Your task to perform on an android device: change timer sound Image 0: 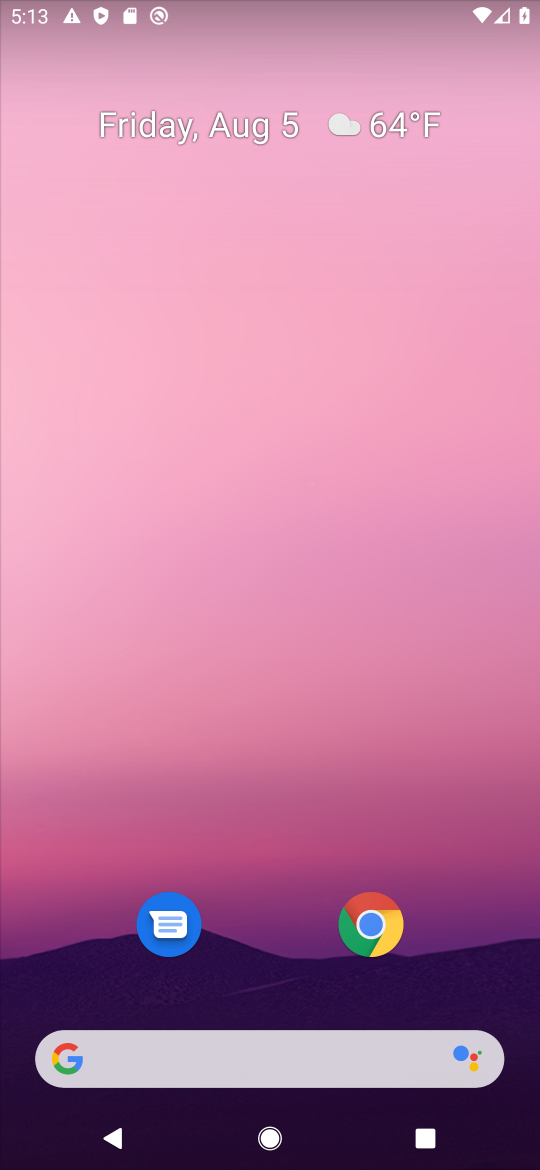
Step 0: drag from (212, 1113) to (498, 255)
Your task to perform on an android device: change timer sound Image 1: 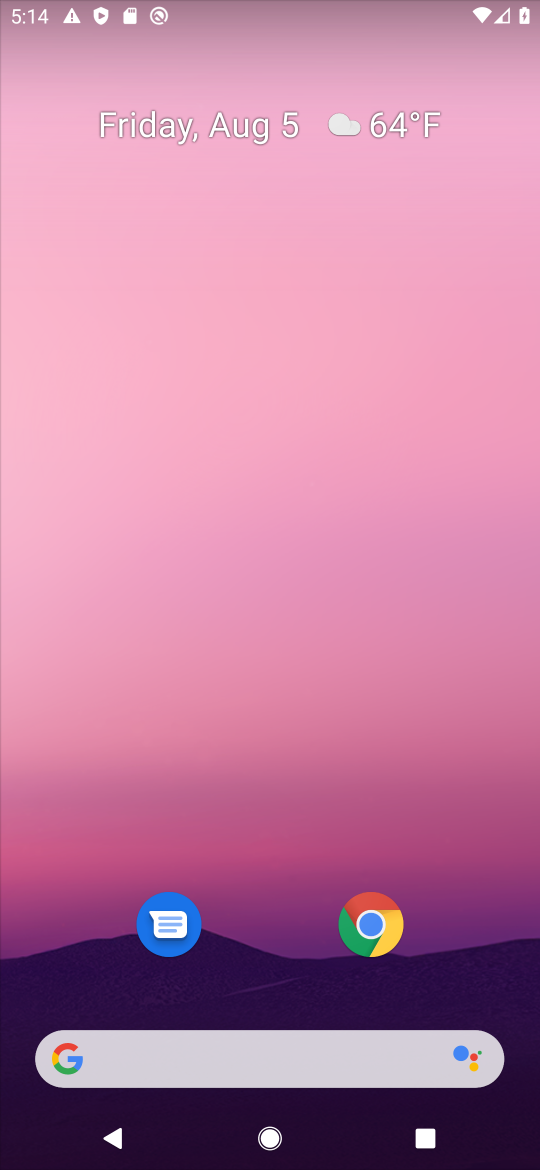
Step 1: drag from (181, 906) to (235, 44)
Your task to perform on an android device: change timer sound Image 2: 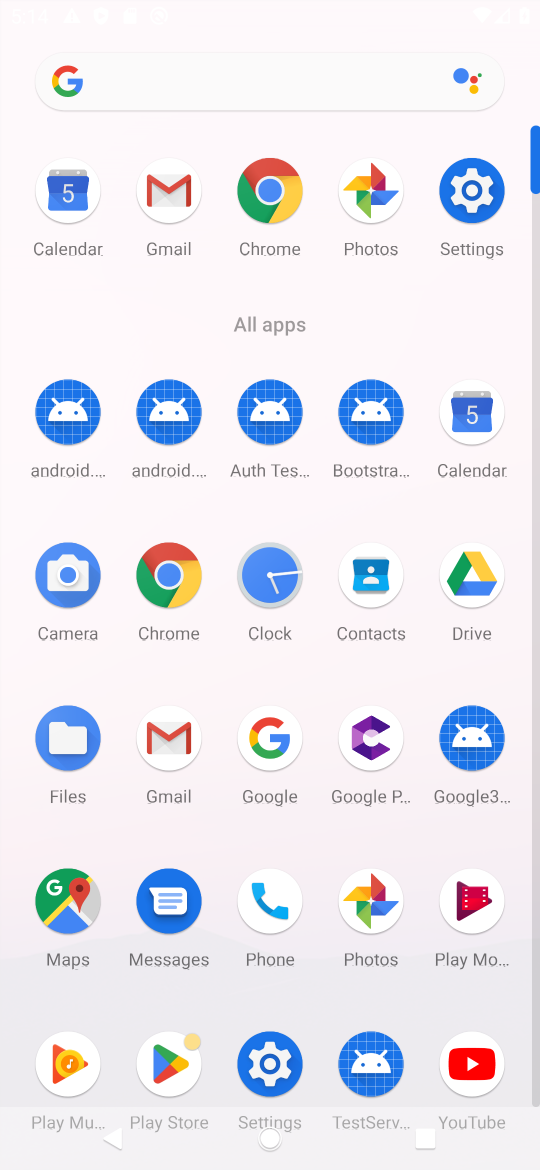
Step 2: click (467, 272)
Your task to perform on an android device: change timer sound Image 3: 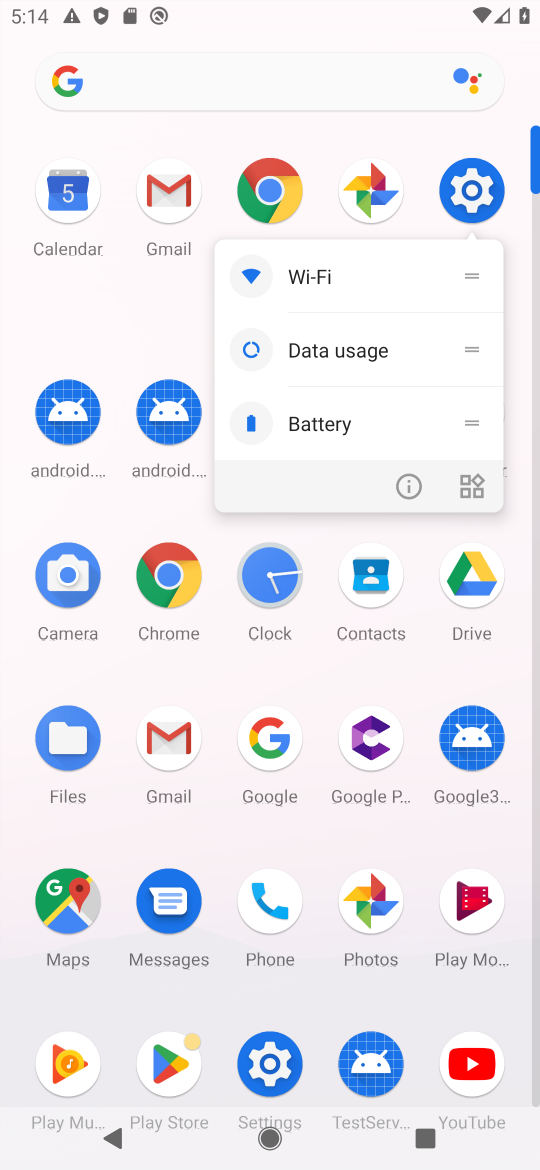
Step 3: click (484, 195)
Your task to perform on an android device: change timer sound Image 4: 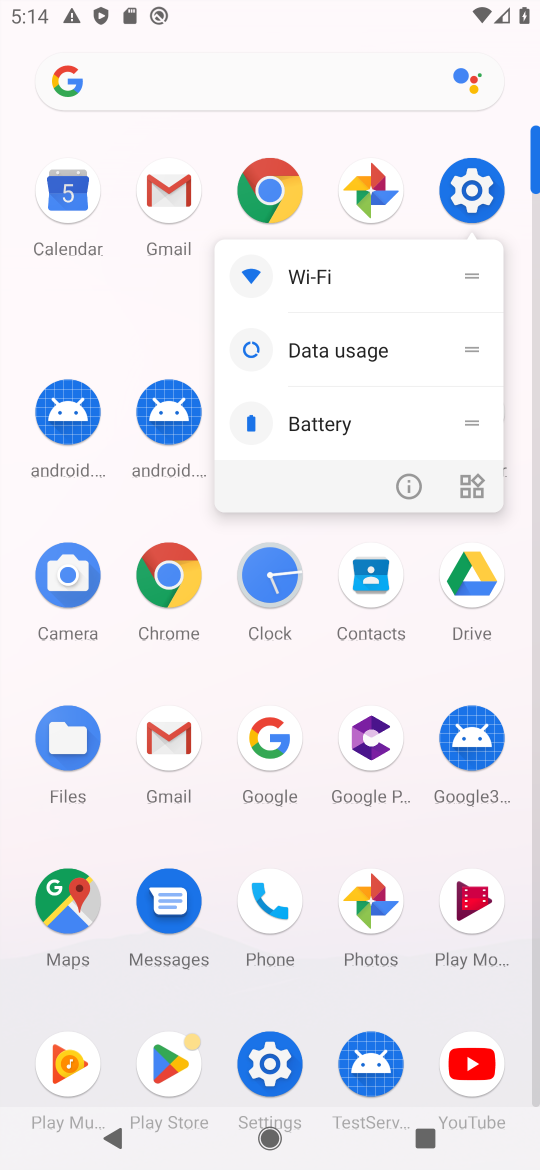
Step 4: click (484, 195)
Your task to perform on an android device: change timer sound Image 5: 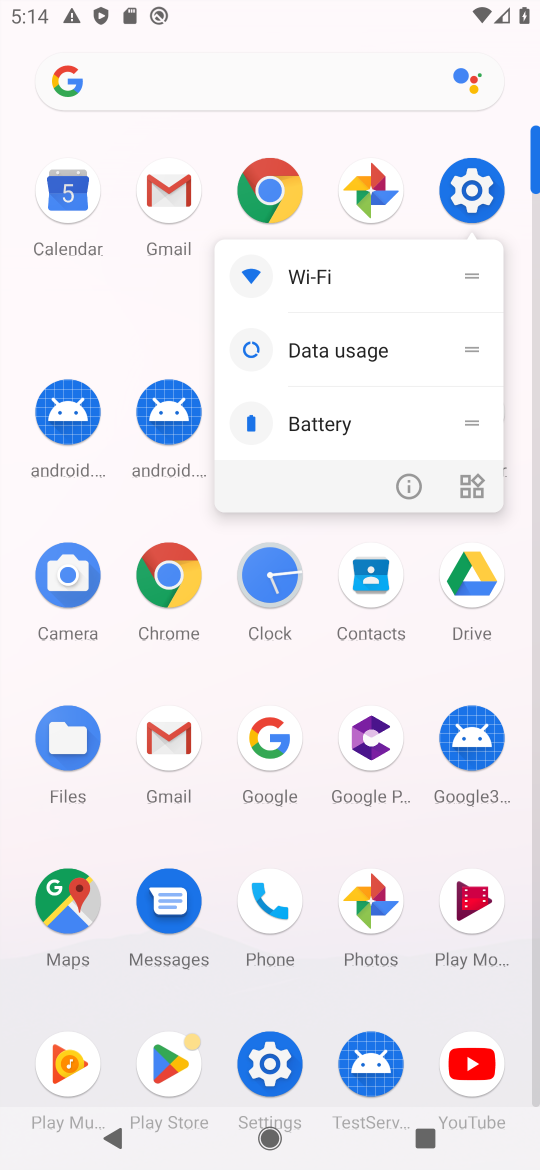
Step 5: click (484, 195)
Your task to perform on an android device: change timer sound Image 6: 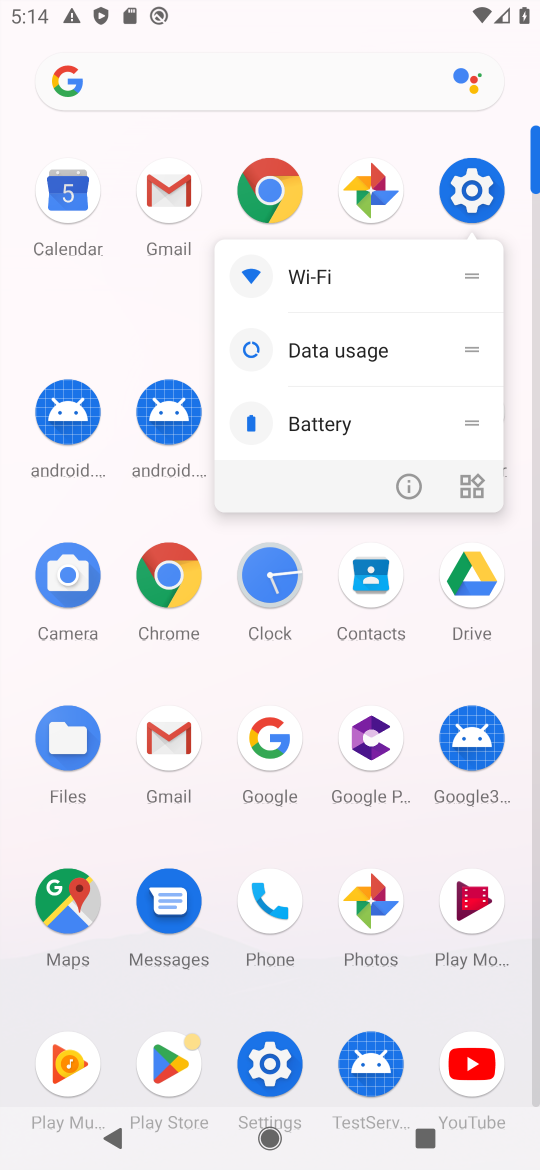
Step 6: click (484, 195)
Your task to perform on an android device: change timer sound Image 7: 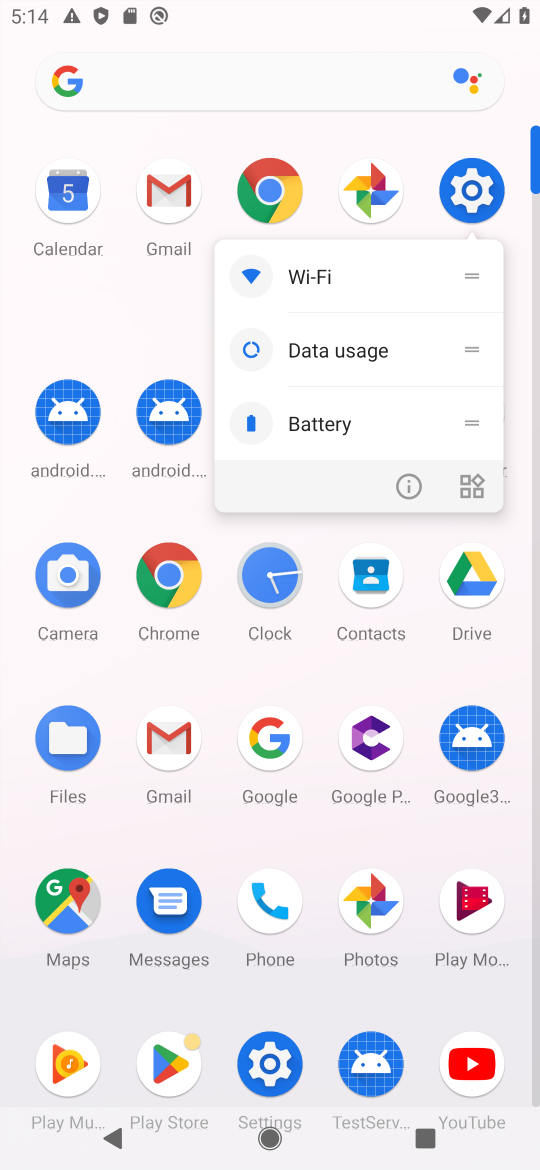
Step 7: click (484, 195)
Your task to perform on an android device: change timer sound Image 8: 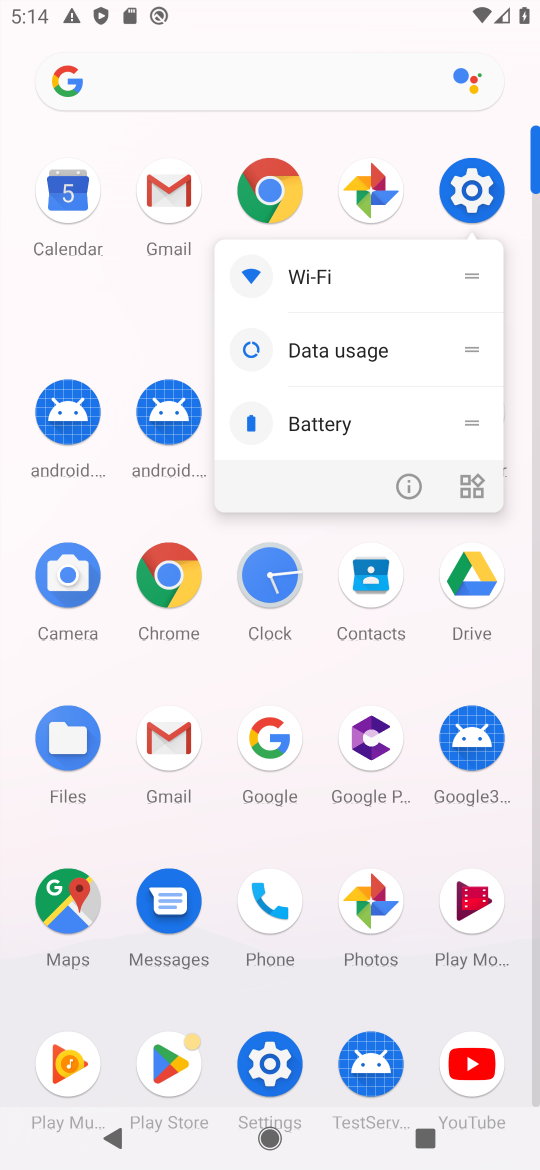
Step 8: click (484, 195)
Your task to perform on an android device: change timer sound Image 9: 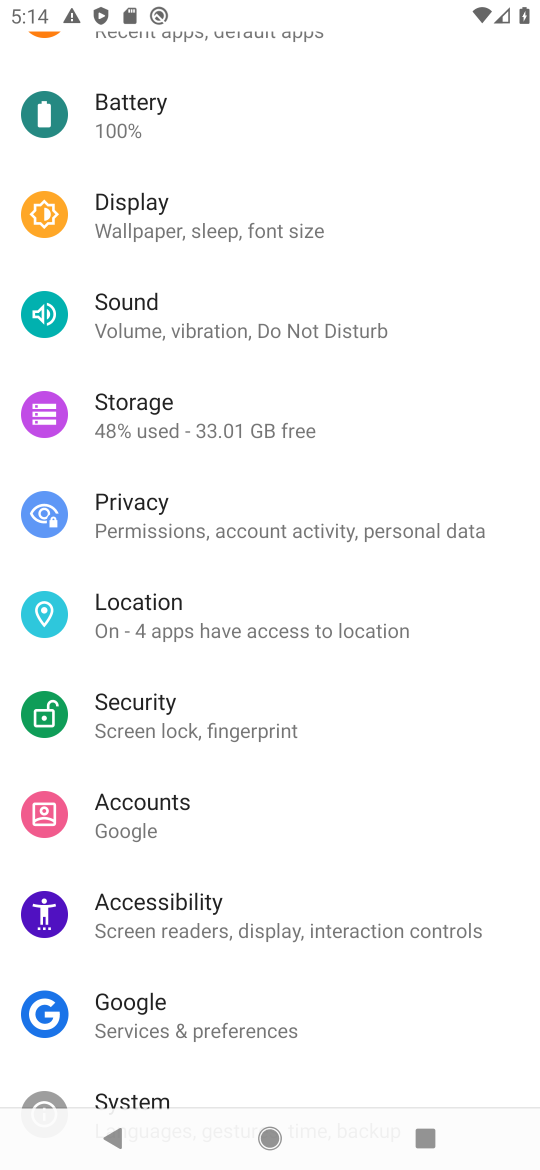
Step 9: press home button
Your task to perform on an android device: change timer sound Image 10: 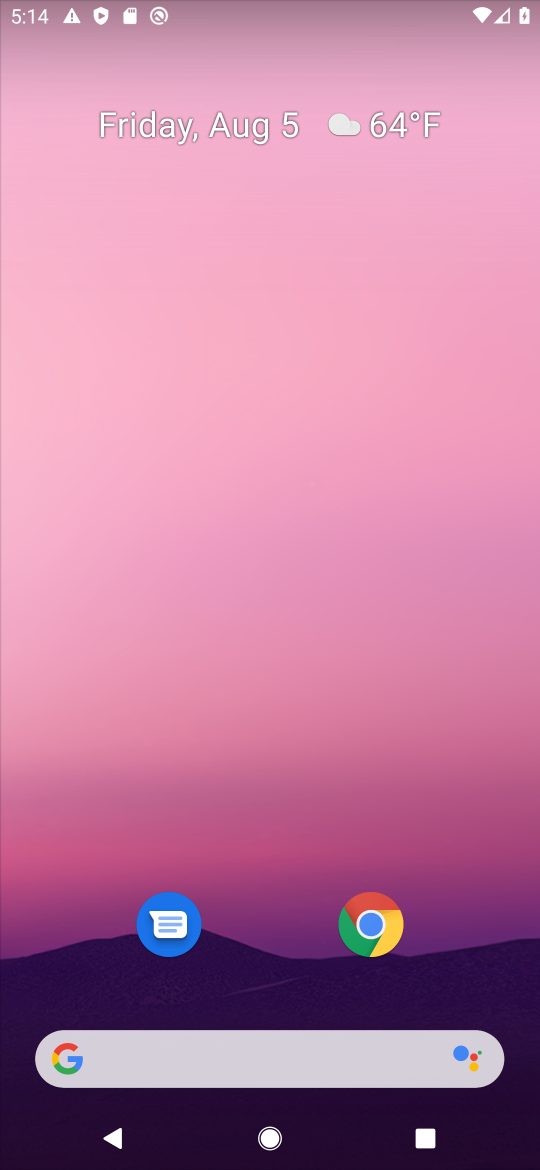
Step 10: drag from (182, 1141) to (435, 26)
Your task to perform on an android device: change timer sound Image 11: 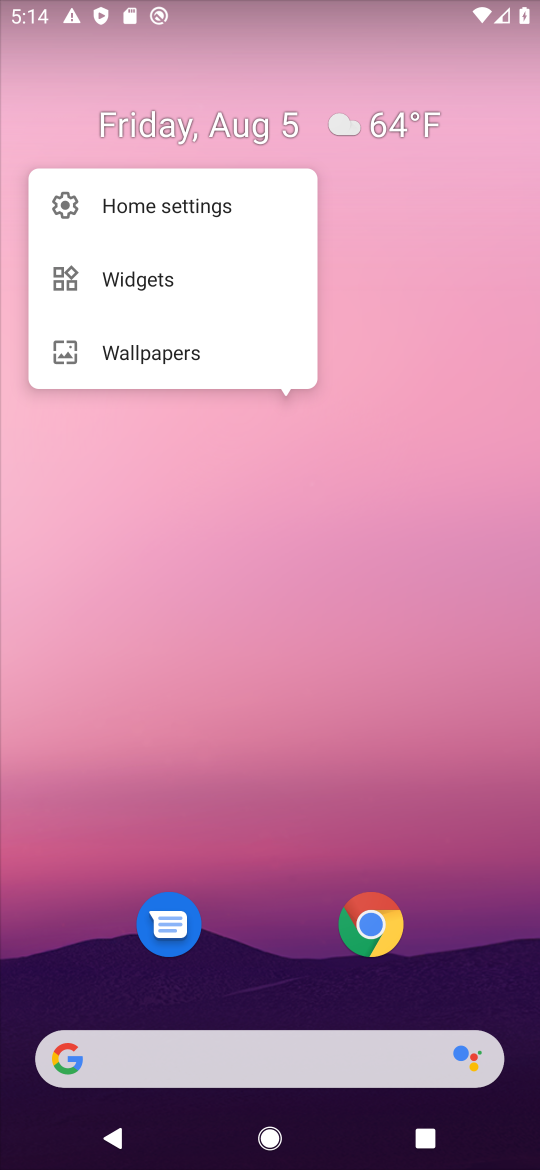
Step 11: drag from (231, 1086) to (435, 219)
Your task to perform on an android device: change timer sound Image 12: 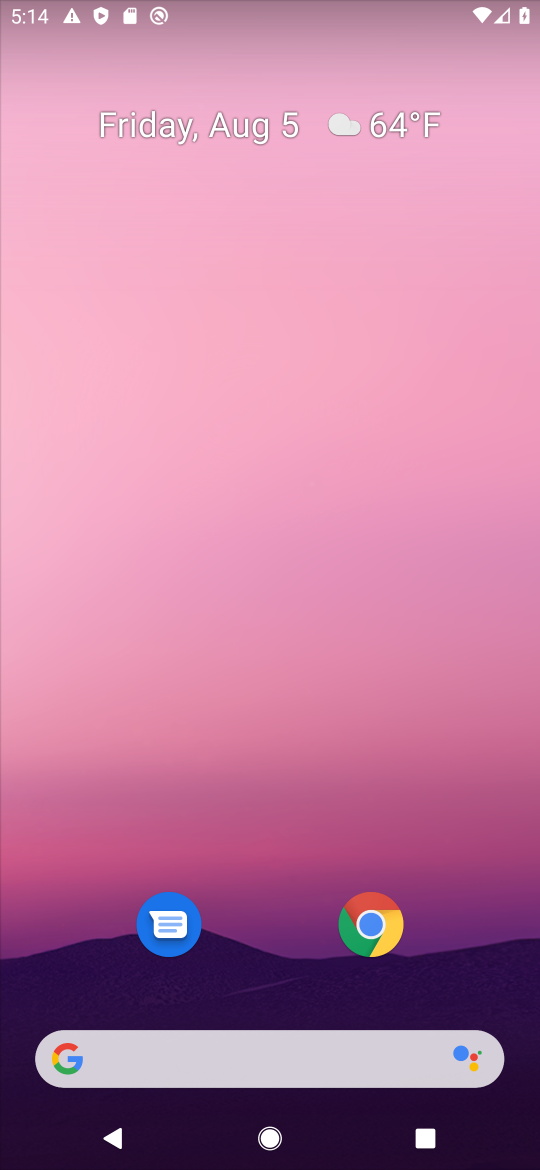
Step 12: drag from (196, 1125) to (441, 239)
Your task to perform on an android device: change timer sound Image 13: 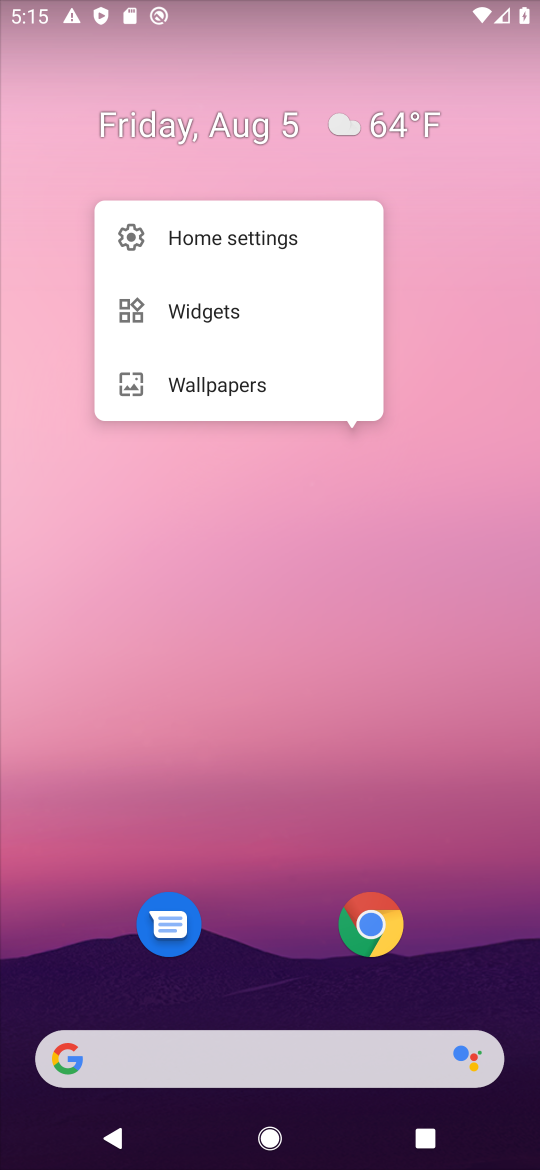
Step 13: drag from (266, 921) to (453, 334)
Your task to perform on an android device: change timer sound Image 14: 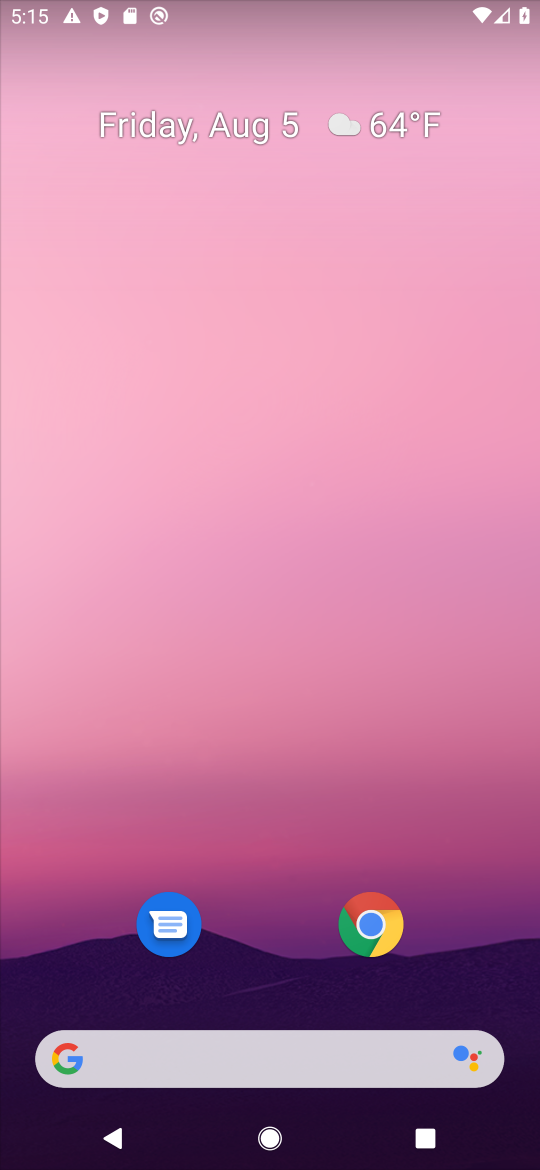
Step 14: drag from (355, 1074) to (385, 289)
Your task to perform on an android device: change timer sound Image 15: 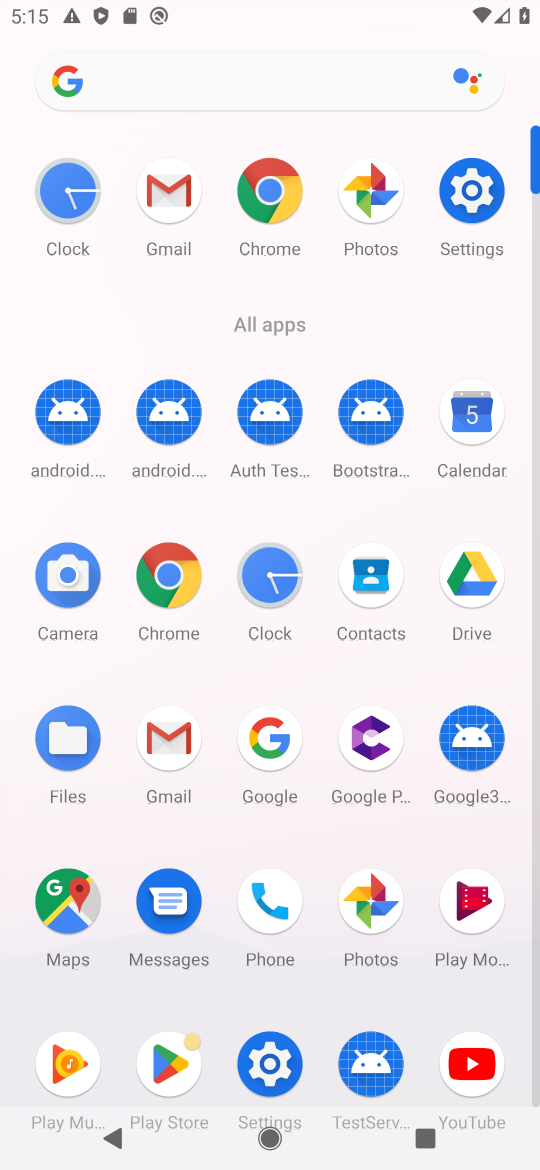
Step 15: click (285, 600)
Your task to perform on an android device: change timer sound Image 16: 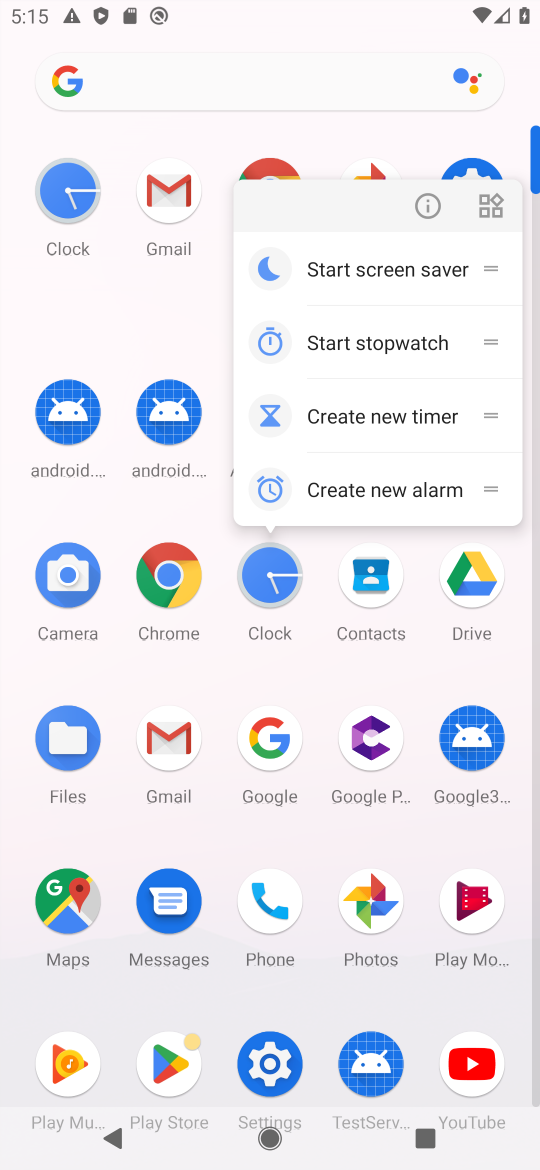
Step 16: click (285, 600)
Your task to perform on an android device: change timer sound Image 17: 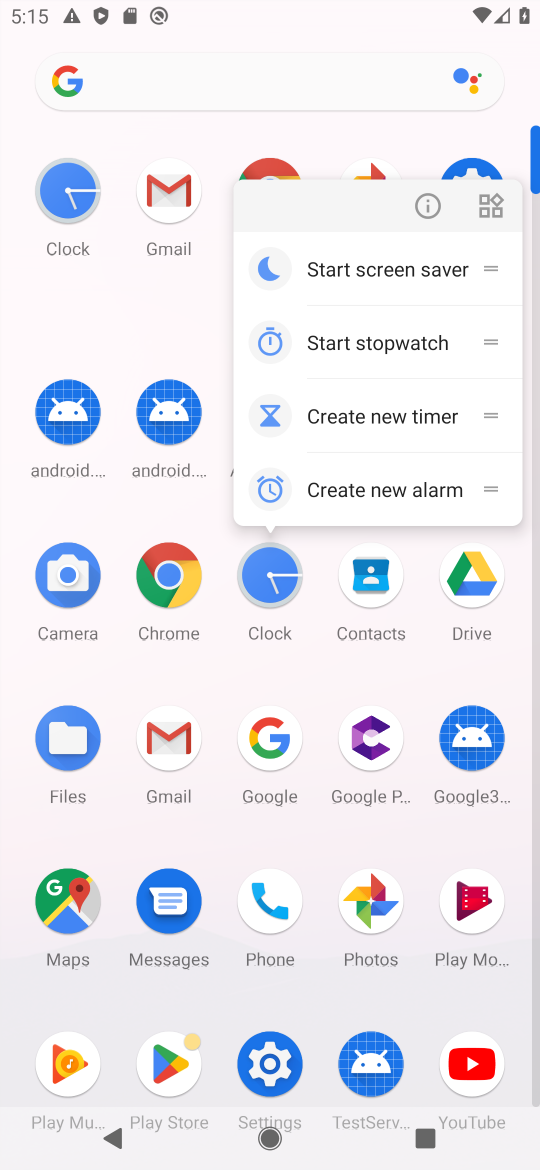
Step 17: click (285, 600)
Your task to perform on an android device: change timer sound Image 18: 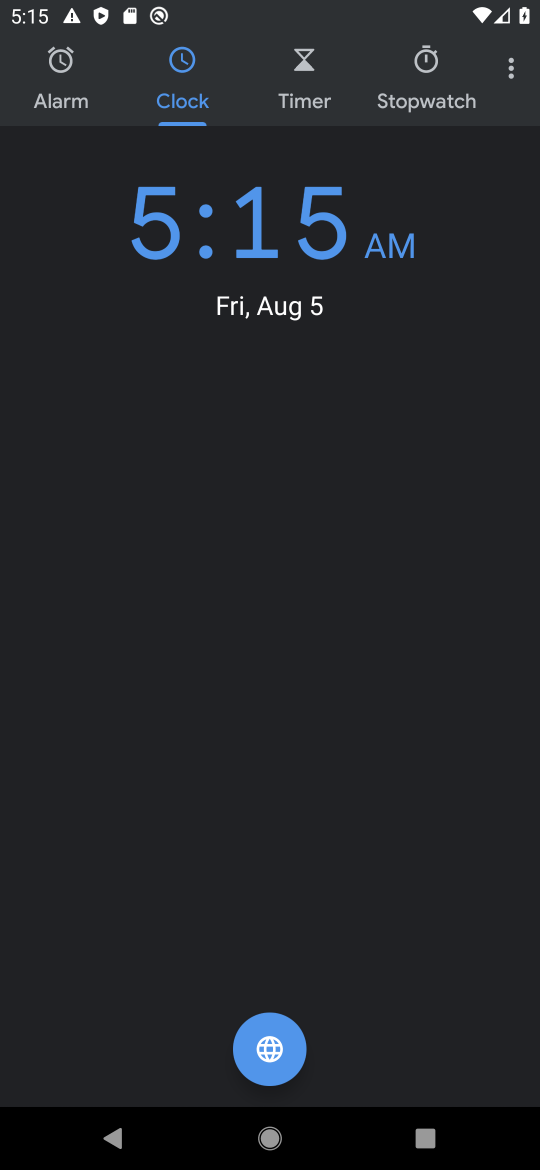
Step 18: click (516, 75)
Your task to perform on an android device: change timer sound Image 19: 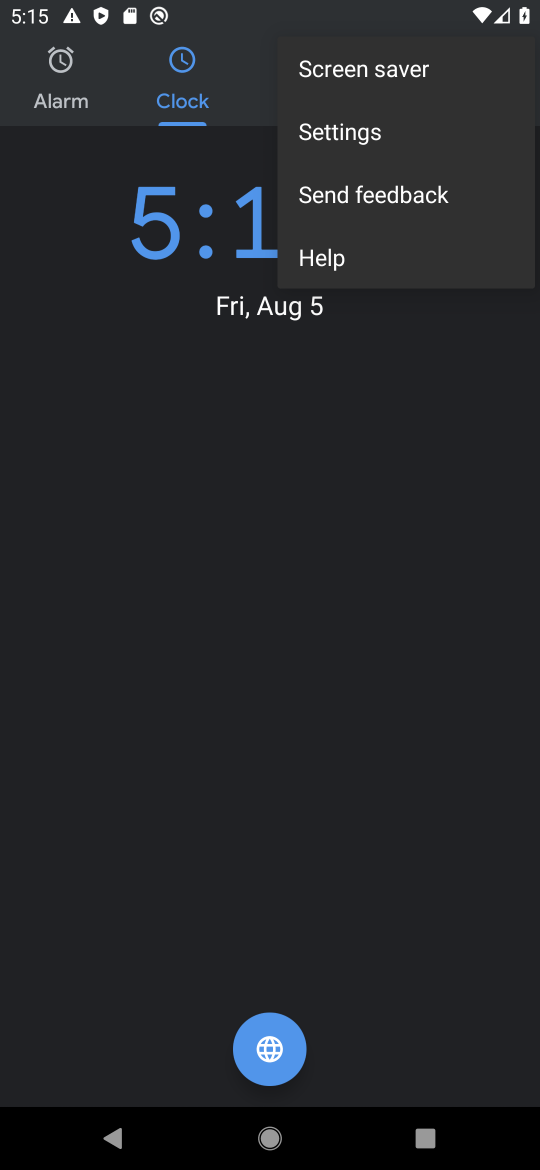
Step 19: click (353, 139)
Your task to perform on an android device: change timer sound Image 20: 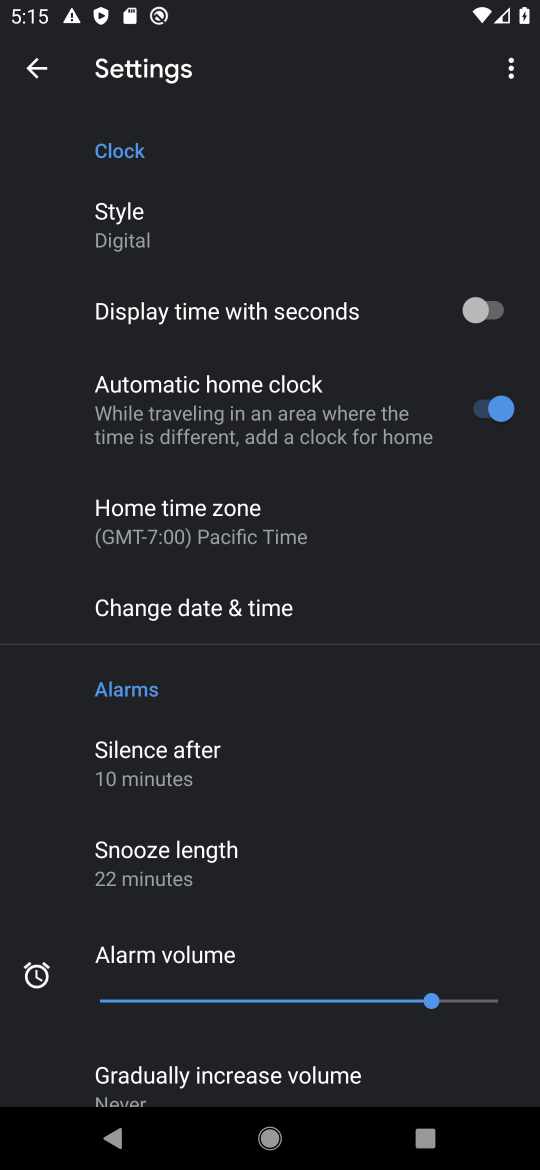
Step 20: drag from (330, 925) to (302, 238)
Your task to perform on an android device: change timer sound Image 21: 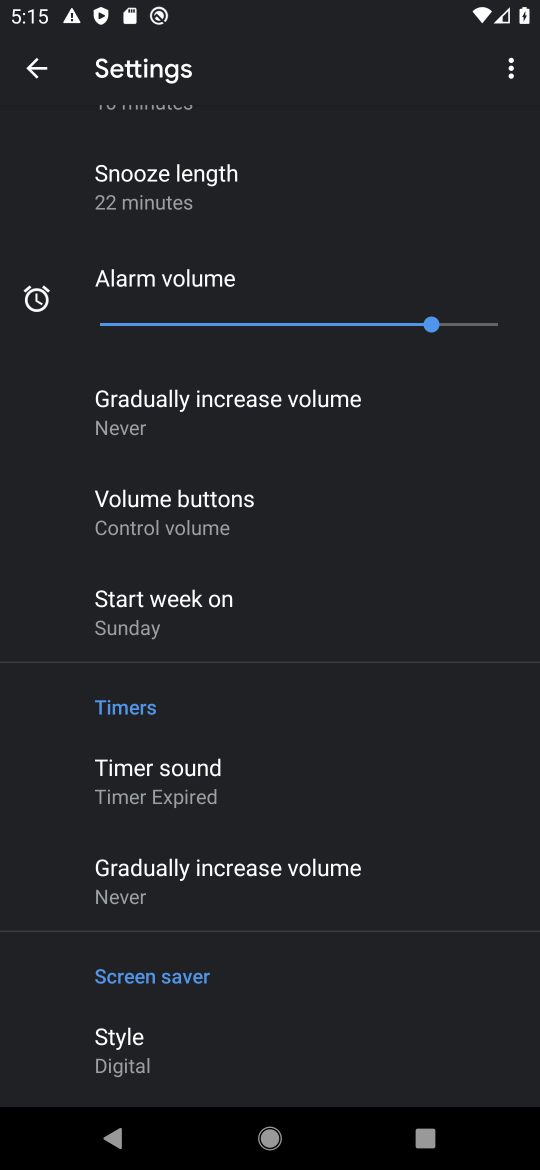
Step 21: click (195, 801)
Your task to perform on an android device: change timer sound Image 22: 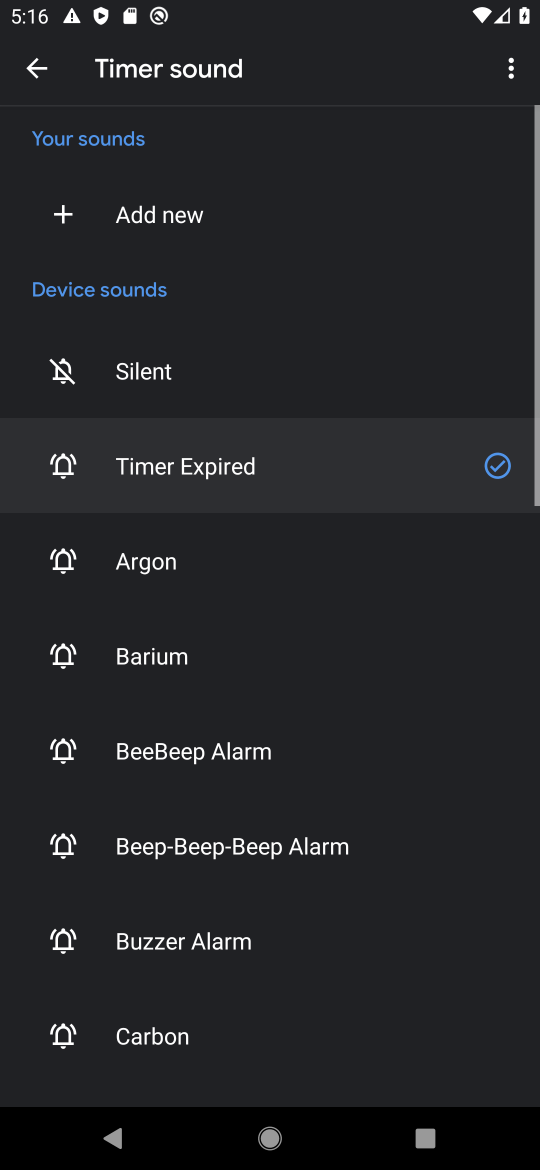
Step 22: click (196, 671)
Your task to perform on an android device: change timer sound Image 23: 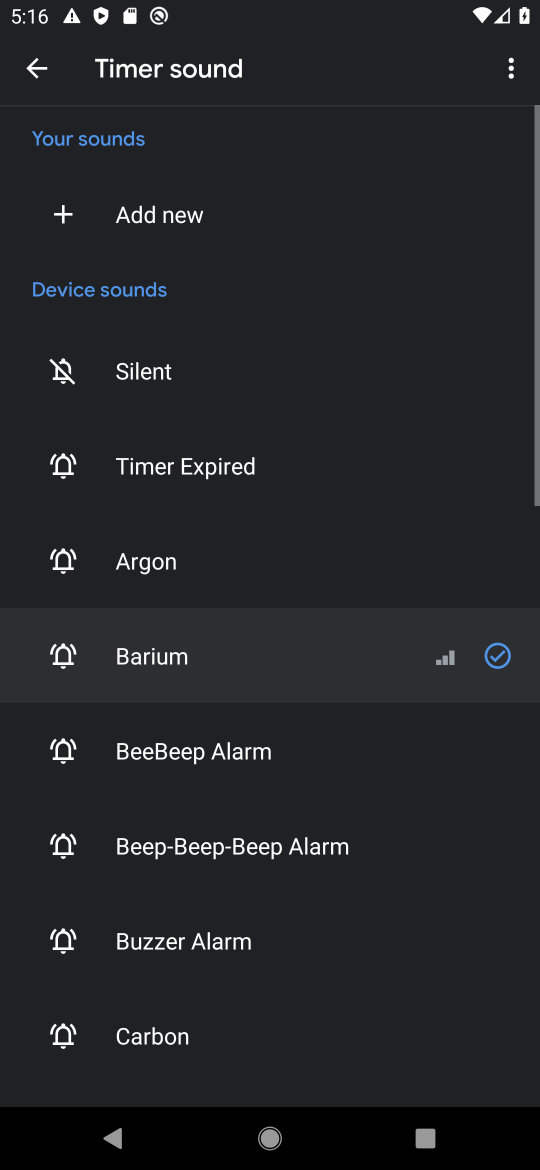
Step 23: task complete